Your task to perform on an android device: Open calendar and show me the third week of next month Image 0: 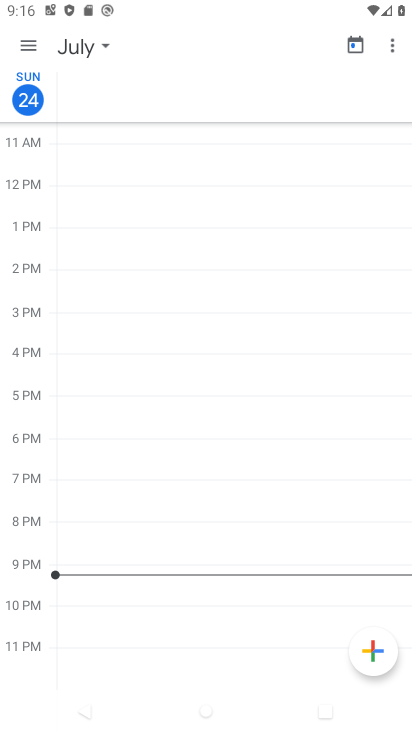
Step 0: press home button
Your task to perform on an android device: Open calendar and show me the third week of next month Image 1: 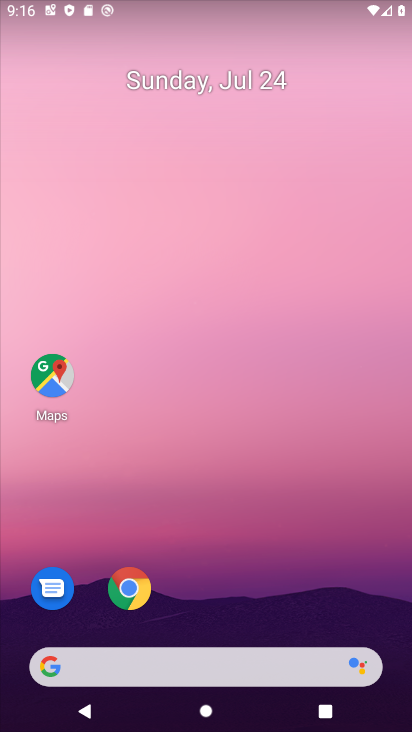
Step 1: drag from (233, 625) to (247, 0)
Your task to perform on an android device: Open calendar and show me the third week of next month Image 2: 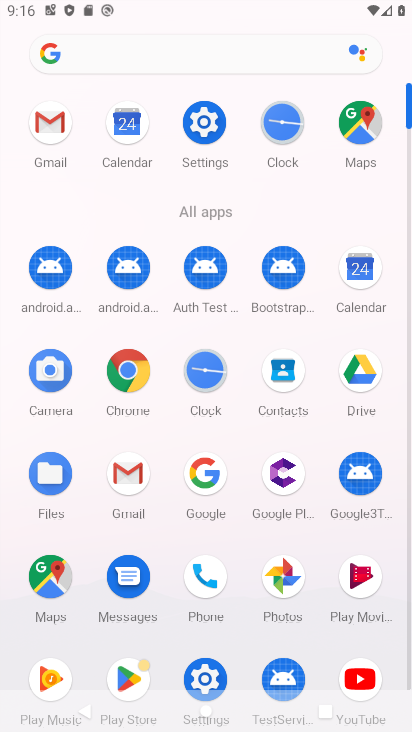
Step 2: click (357, 271)
Your task to perform on an android device: Open calendar and show me the third week of next month Image 3: 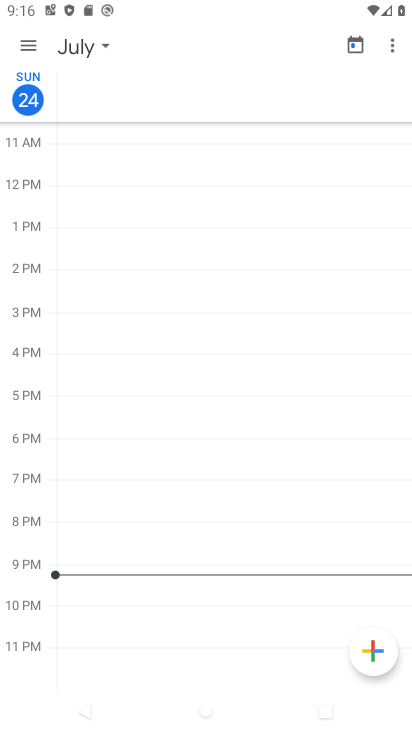
Step 3: click (105, 49)
Your task to perform on an android device: Open calendar and show me the third week of next month Image 4: 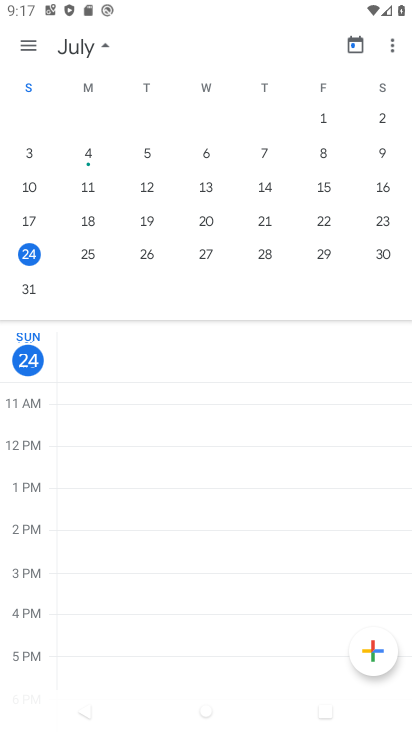
Step 4: drag from (318, 206) to (9, 306)
Your task to perform on an android device: Open calendar and show me the third week of next month Image 5: 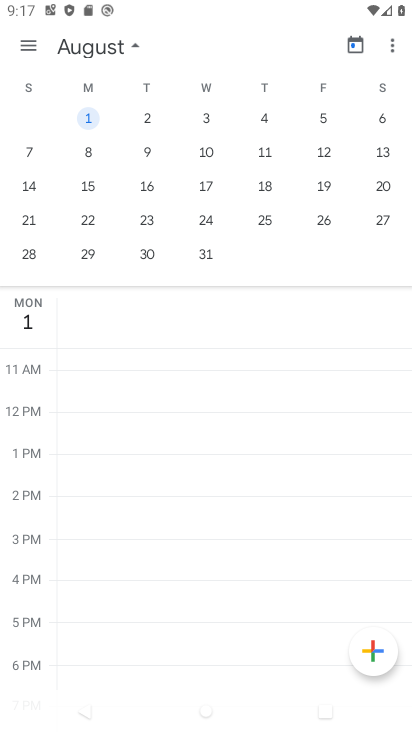
Step 5: drag from (267, 204) to (317, 200)
Your task to perform on an android device: Open calendar and show me the third week of next month Image 6: 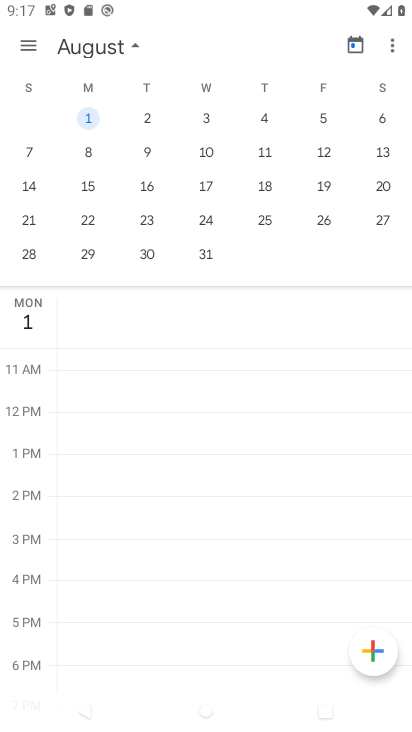
Step 6: click (26, 43)
Your task to perform on an android device: Open calendar and show me the third week of next month Image 7: 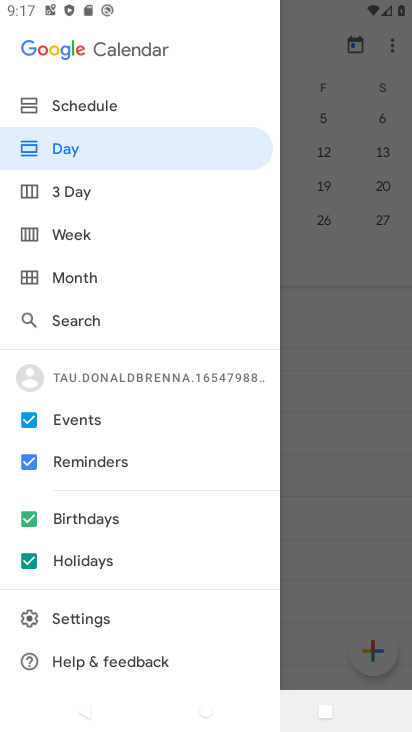
Step 7: click (85, 231)
Your task to perform on an android device: Open calendar and show me the third week of next month Image 8: 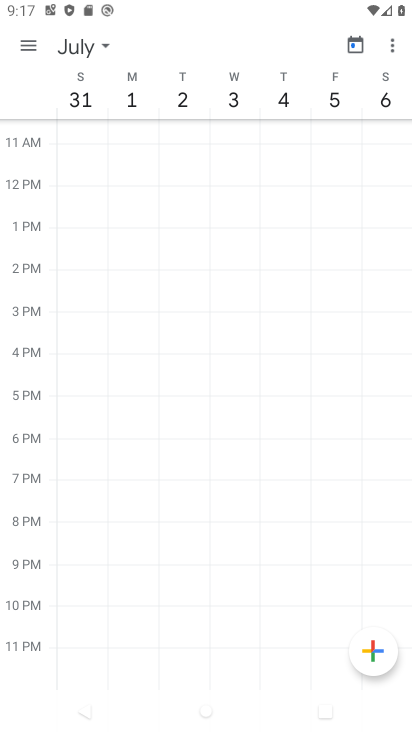
Step 8: task complete